Your task to perform on an android device: set the stopwatch Image 0: 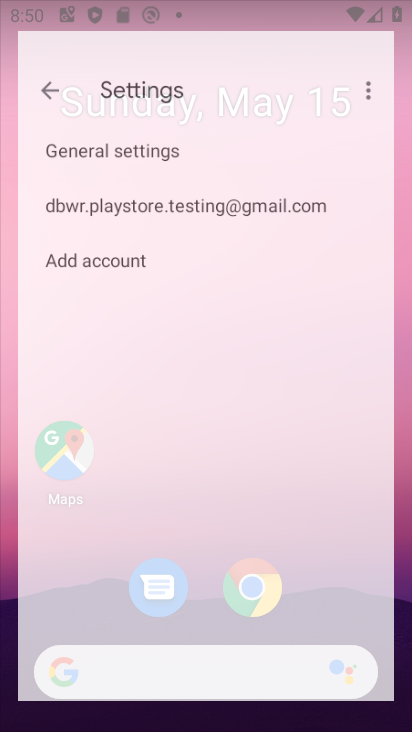
Step 0: drag from (380, 631) to (308, 198)
Your task to perform on an android device: set the stopwatch Image 1: 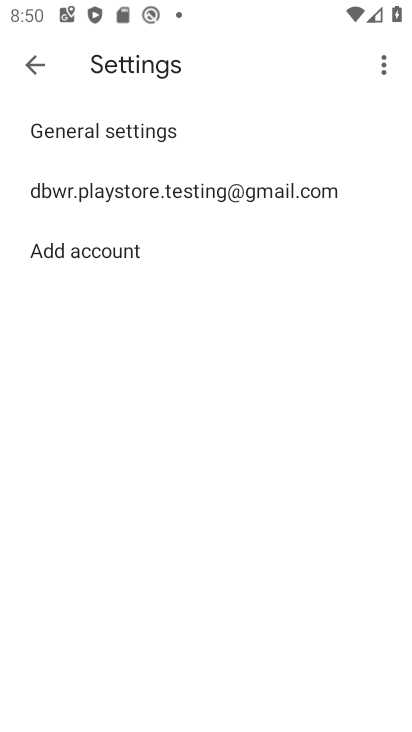
Step 1: press home button
Your task to perform on an android device: set the stopwatch Image 2: 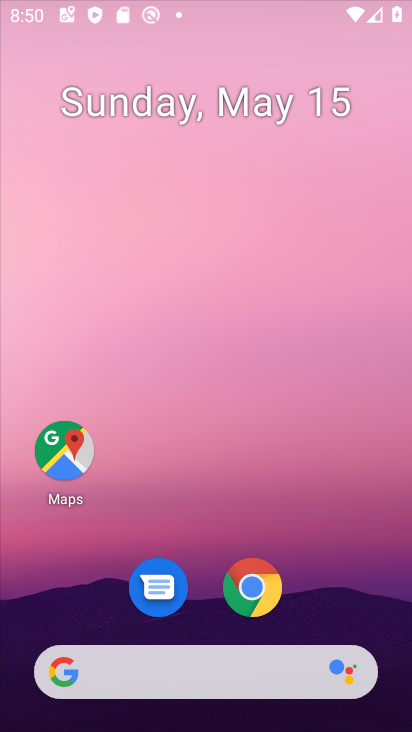
Step 2: drag from (353, 519) to (240, 73)
Your task to perform on an android device: set the stopwatch Image 3: 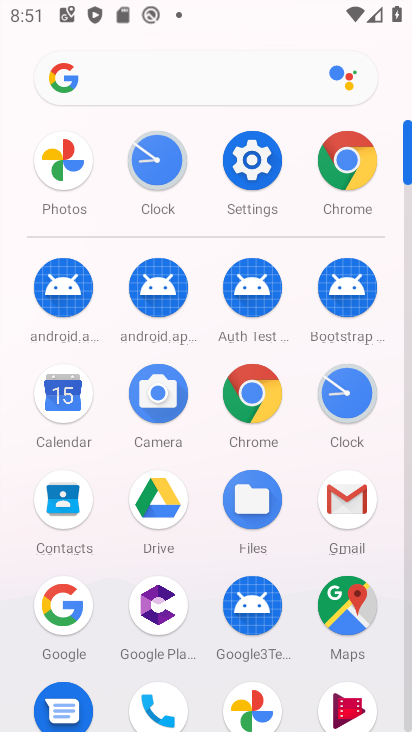
Step 3: click (355, 389)
Your task to perform on an android device: set the stopwatch Image 4: 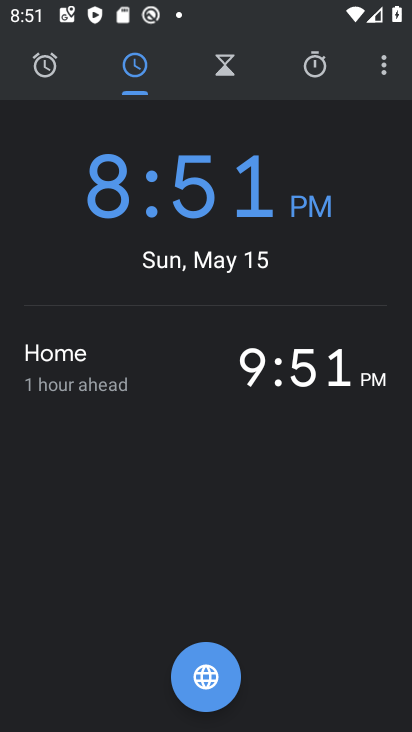
Step 4: click (387, 67)
Your task to perform on an android device: set the stopwatch Image 5: 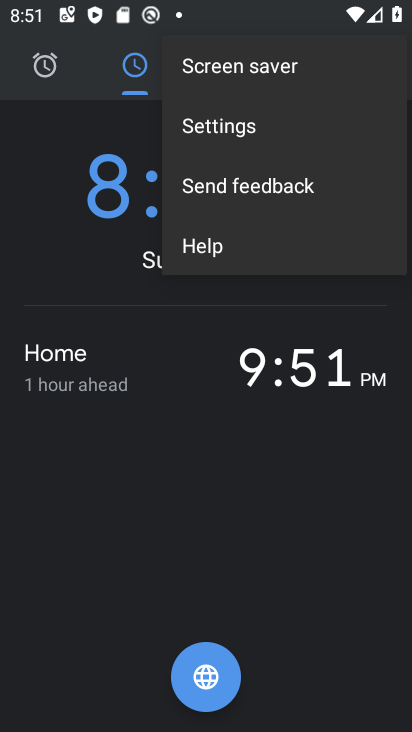
Step 5: click (183, 477)
Your task to perform on an android device: set the stopwatch Image 6: 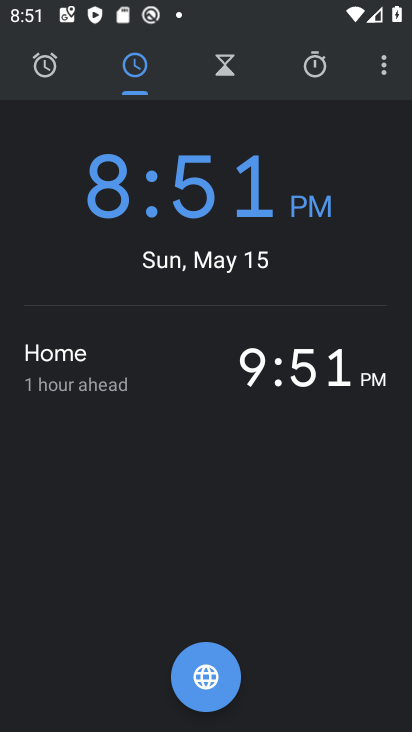
Step 6: click (316, 52)
Your task to perform on an android device: set the stopwatch Image 7: 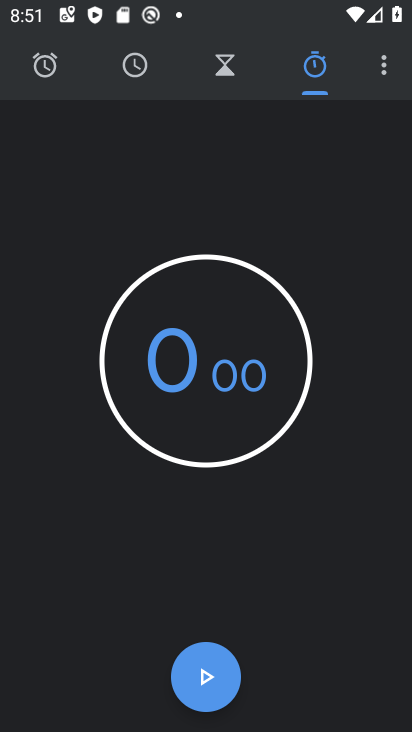
Step 7: task complete